Your task to perform on an android device: toggle wifi Image 0: 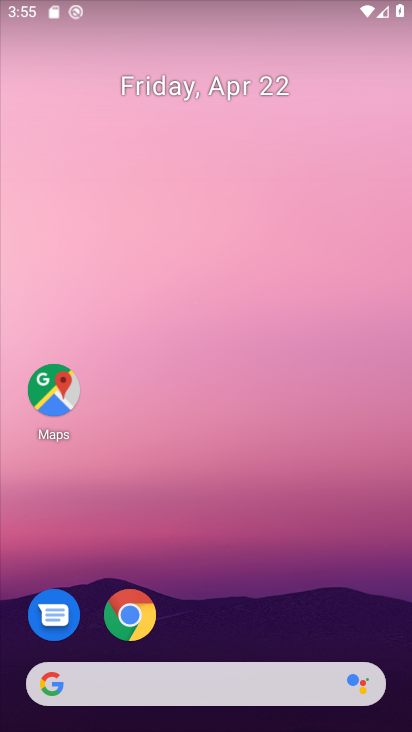
Step 0: drag from (360, 49) to (337, 461)
Your task to perform on an android device: toggle wifi Image 1: 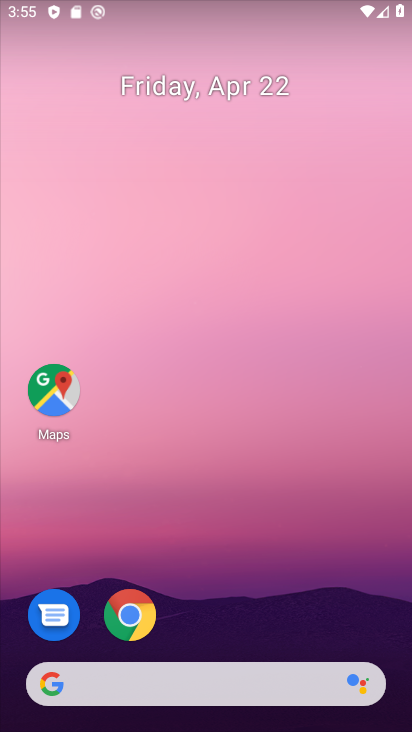
Step 1: drag from (337, 10) to (268, 466)
Your task to perform on an android device: toggle wifi Image 2: 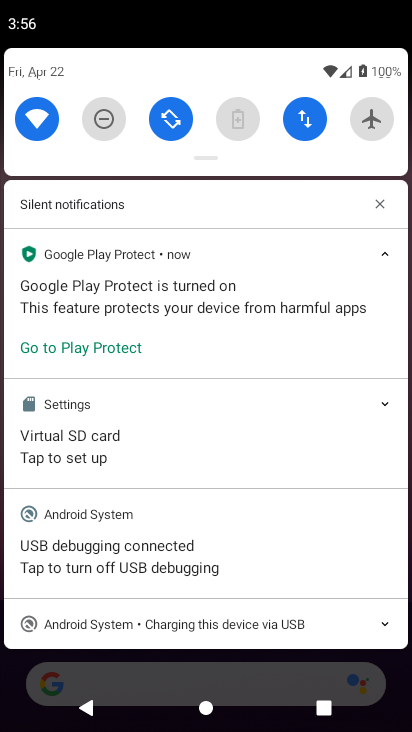
Step 2: click (43, 122)
Your task to perform on an android device: toggle wifi Image 3: 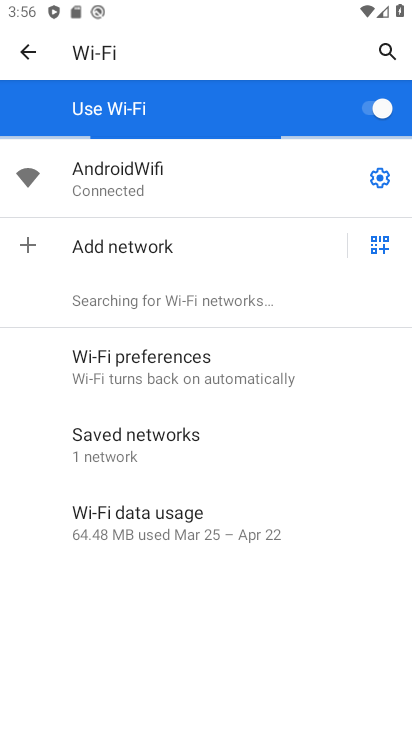
Step 3: click (382, 113)
Your task to perform on an android device: toggle wifi Image 4: 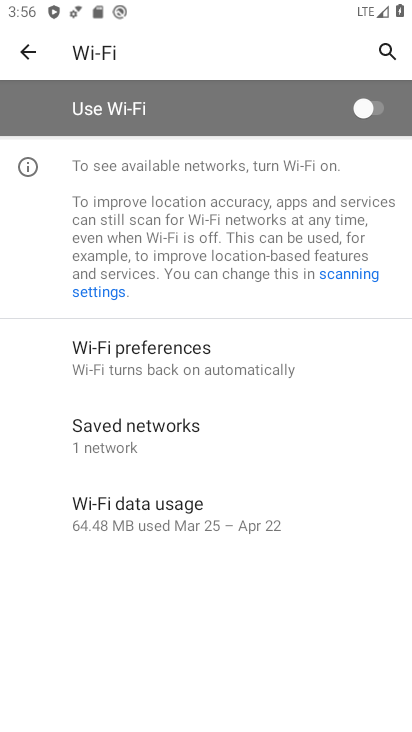
Step 4: task complete